Your task to perform on an android device: Open display settings Image 0: 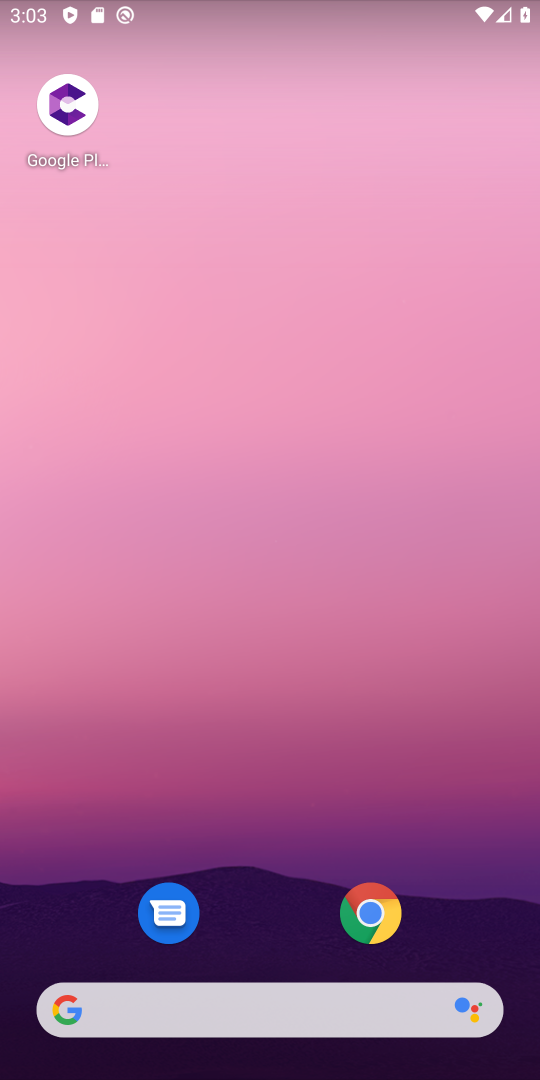
Step 0: press home button
Your task to perform on an android device: Open display settings Image 1: 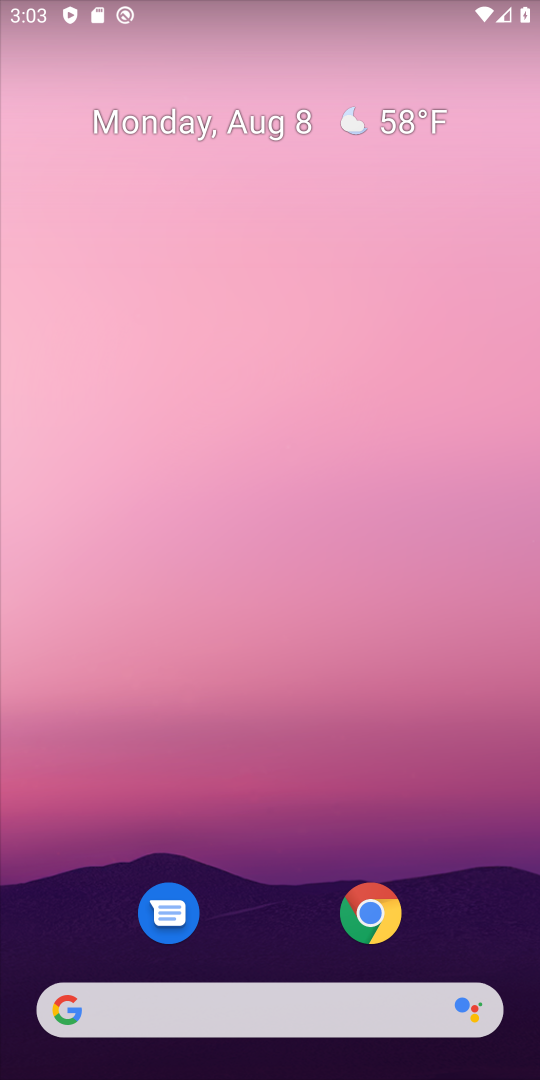
Step 1: drag from (458, 917) to (440, 190)
Your task to perform on an android device: Open display settings Image 2: 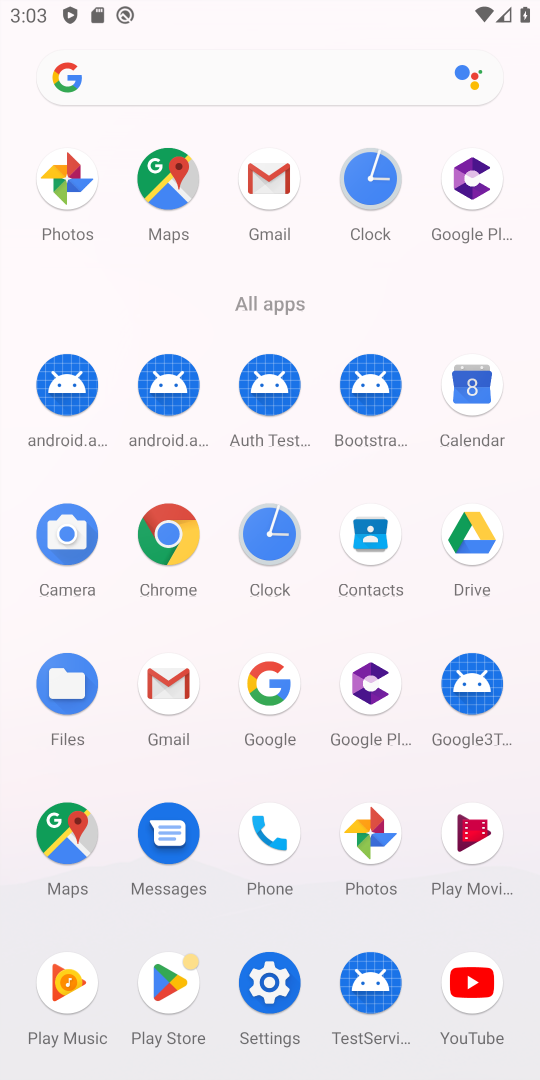
Step 2: click (272, 984)
Your task to perform on an android device: Open display settings Image 3: 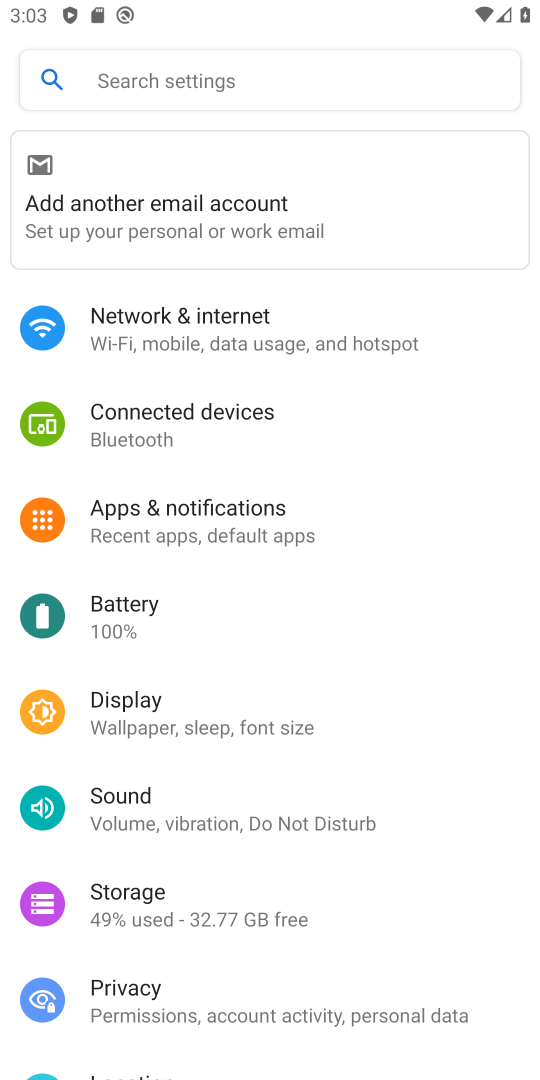
Step 3: drag from (419, 778) to (405, 573)
Your task to perform on an android device: Open display settings Image 4: 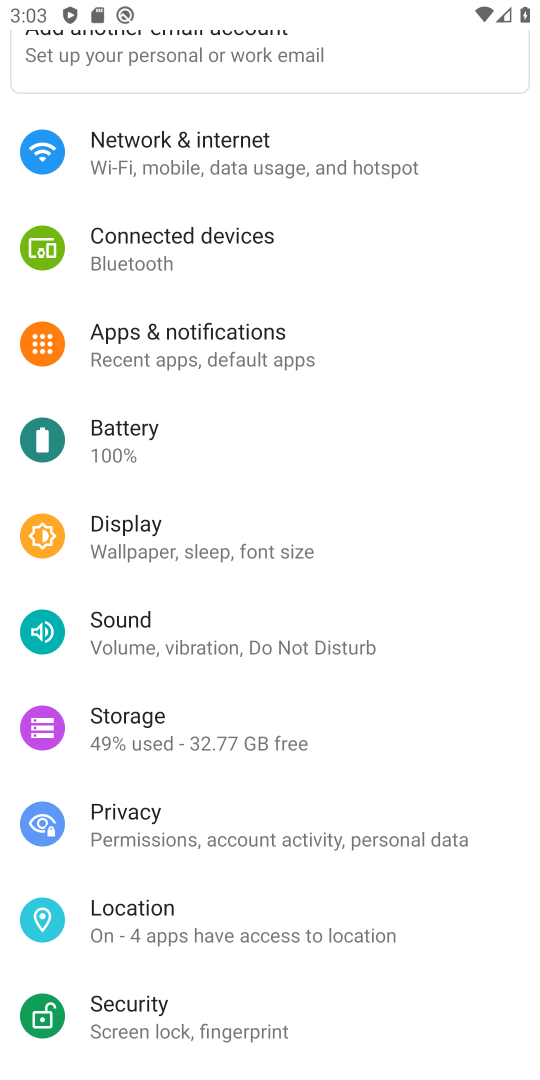
Step 4: drag from (402, 764) to (420, 533)
Your task to perform on an android device: Open display settings Image 5: 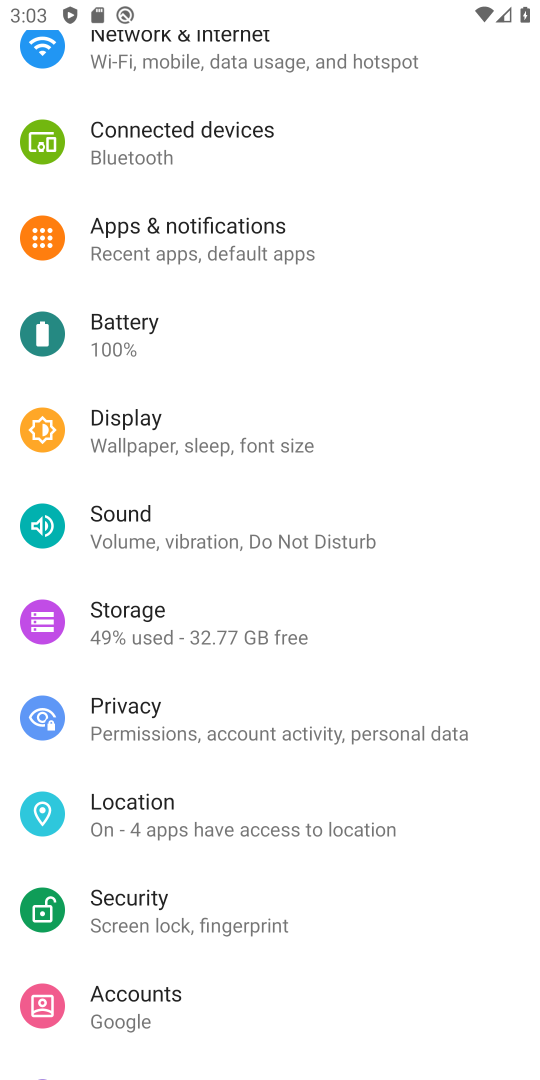
Step 5: drag from (430, 848) to (425, 618)
Your task to perform on an android device: Open display settings Image 6: 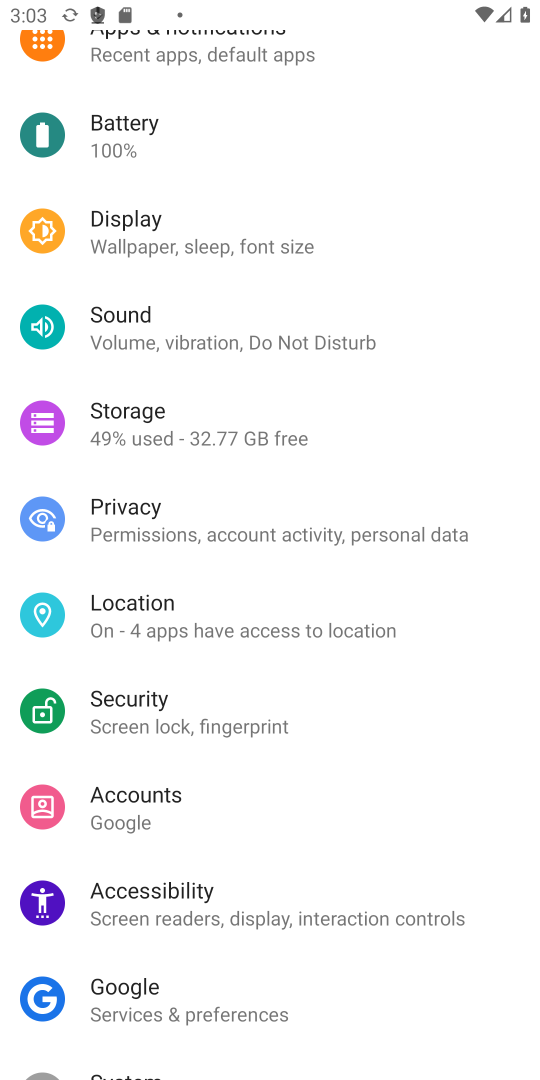
Step 6: drag from (427, 786) to (441, 534)
Your task to perform on an android device: Open display settings Image 7: 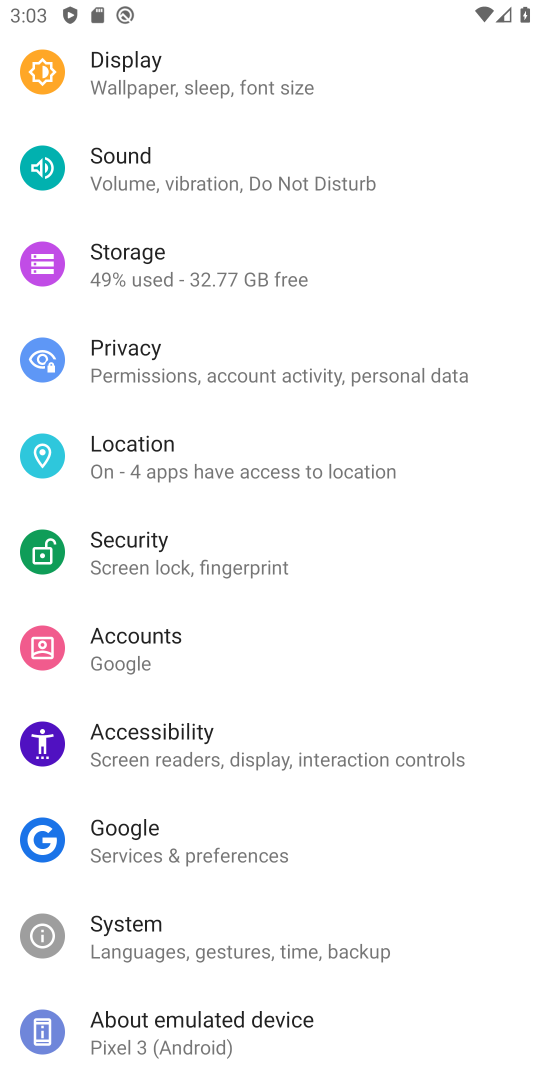
Step 7: click (471, 608)
Your task to perform on an android device: Open display settings Image 8: 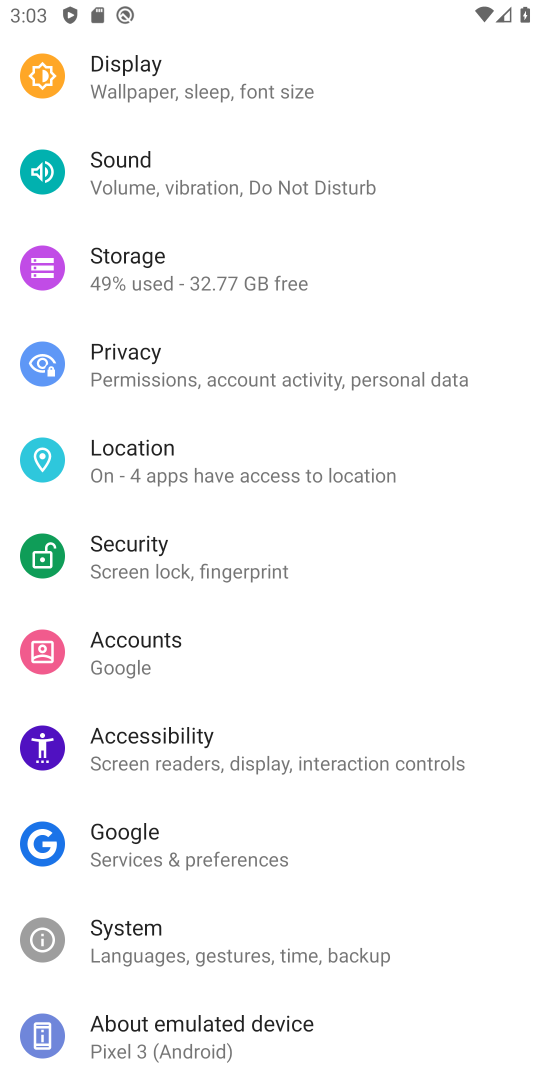
Step 8: drag from (477, 199) to (479, 365)
Your task to perform on an android device: Open display settings Image 9: 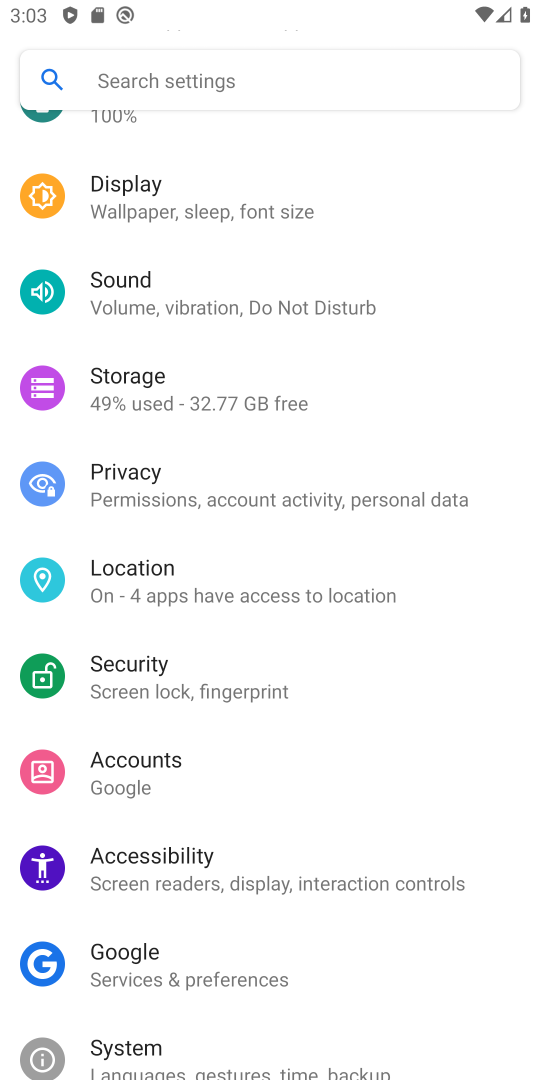
Step 9: drag from (467, 220) to (467, 375)
Your task to perform on an android device: Open display settings Image 10: 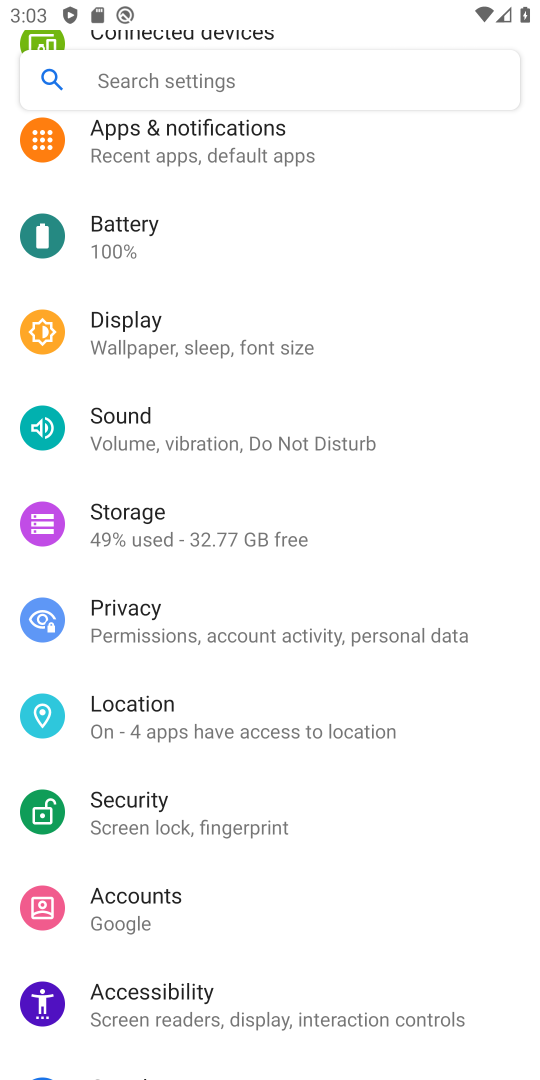
Step 10: drag from (461, 176) to (472, 375)
Your task to perform on an android device: Open display settings Image 11: 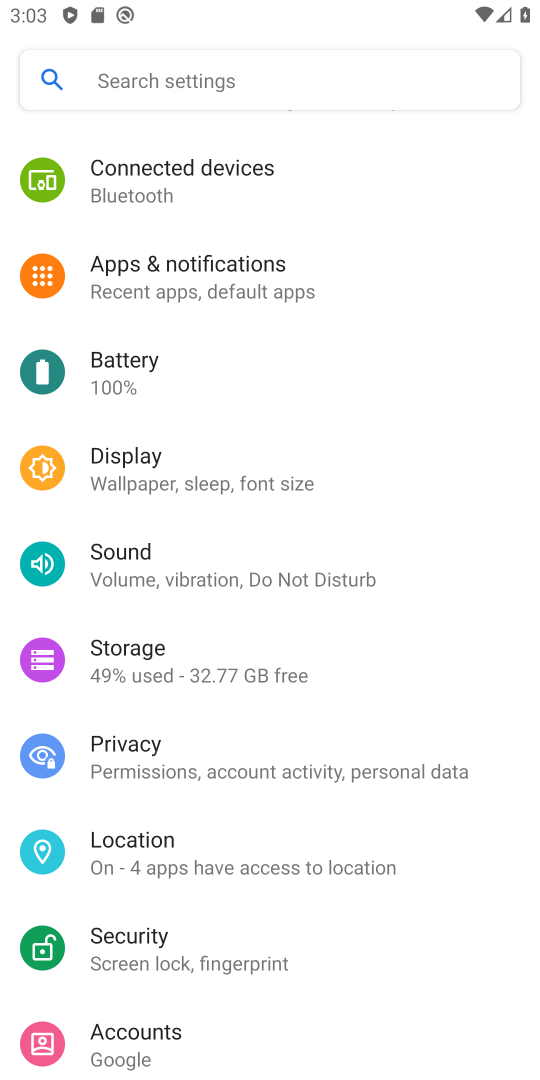
Step 11: click (281, 502)
Your task to perform on an android device: Open display settings Image 12: 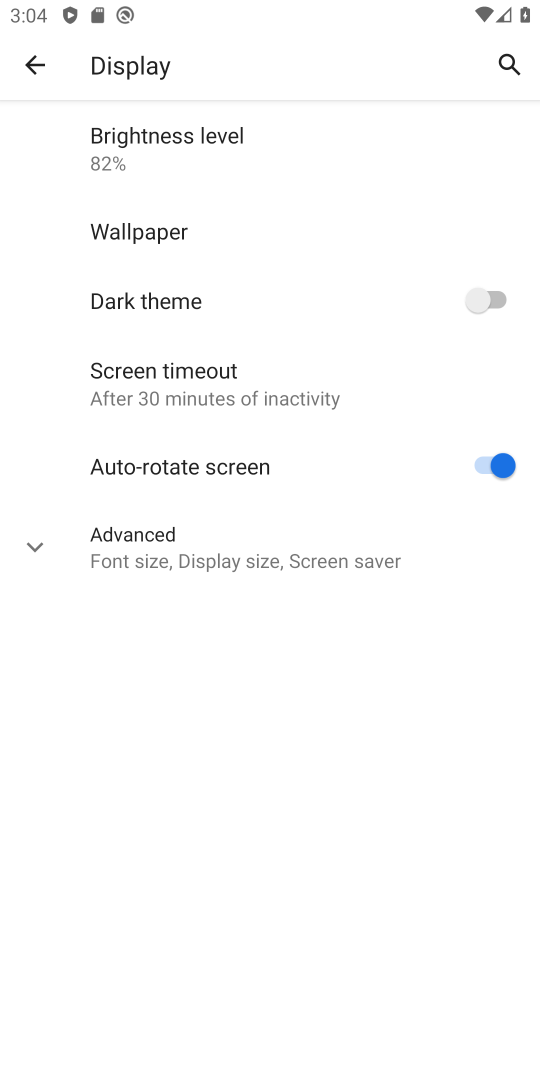
Step 12: task complete